Your task to perform on an android device: Search for pizza restaurants on Maps Image 0: 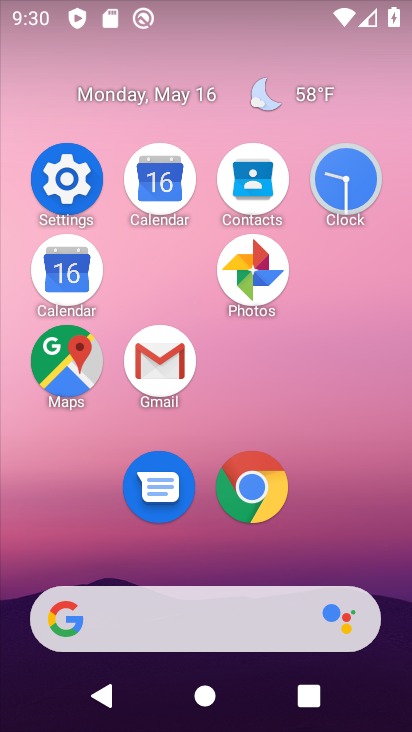
Step 0: click (84, 380)
Your task to perform on an android device: Search for pizza restaurants on Maps Image 1: 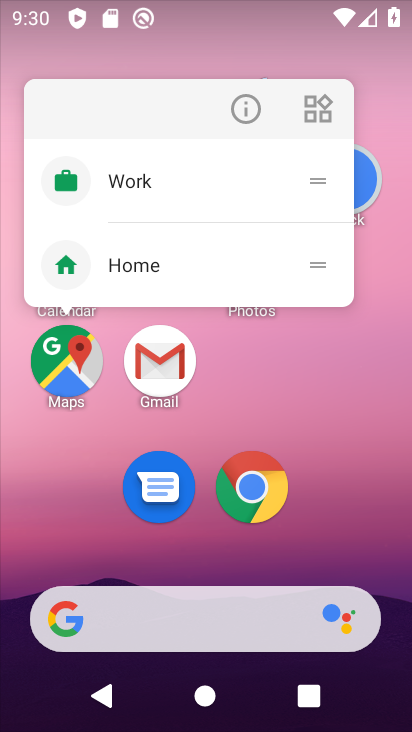
Step 1: click (41, 408)
Your task to perform on an android device: Search for pizza restaurants on Maps Image 2: 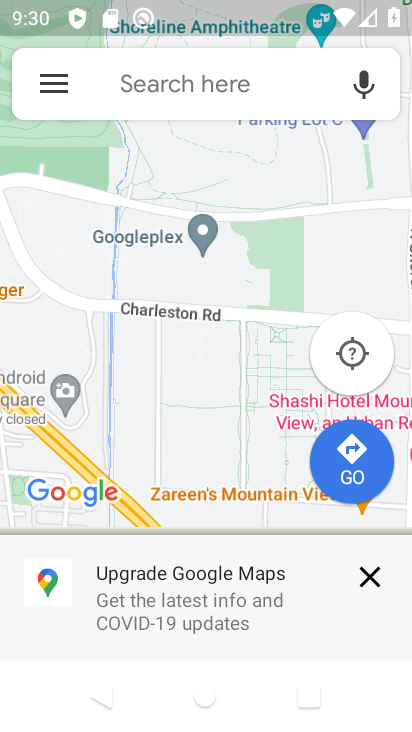
Step 2: click (257, 75)
Your task to perform on an android device: Search for pizza restaurants on Maps Image 3: 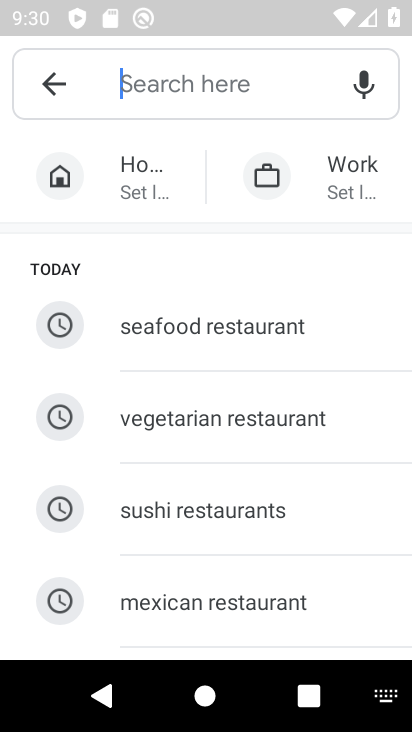
Step 3: drag from (233, 544) to (271, 216)
Your task to perform on an android device: Search for pizza restaurants on Maps Image 4: 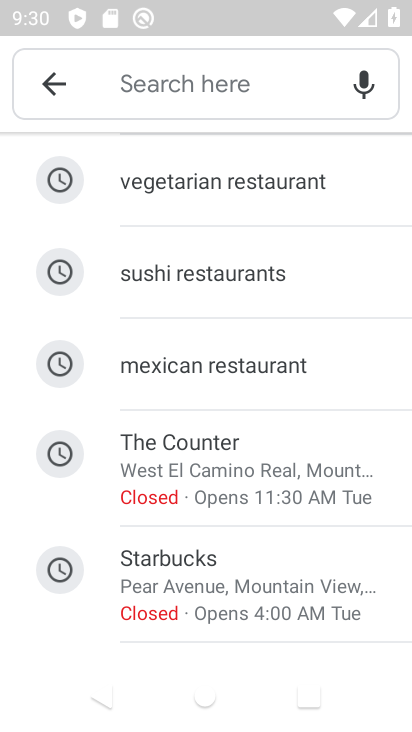
Step 4: click (202, 97)
Your task to perform on an android device: Search for pizza restaurants on Maps Image 5: 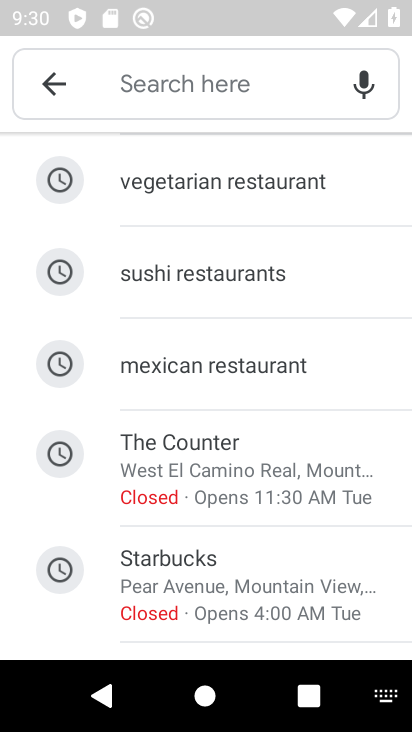
Step 5: type "pizza restaurants"
Your task to perform on an android device: Search for pizza restaurants on Maps Image 6: 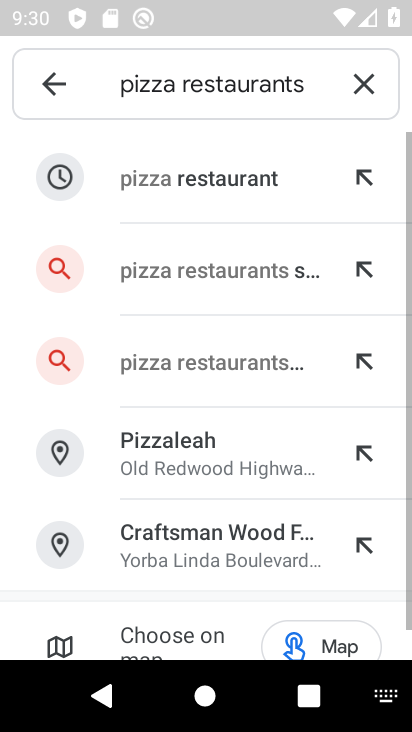
Step 6: click (160, 159)
Your task to perform on an android device: Search for pizza restaurants on Maps Image 7: 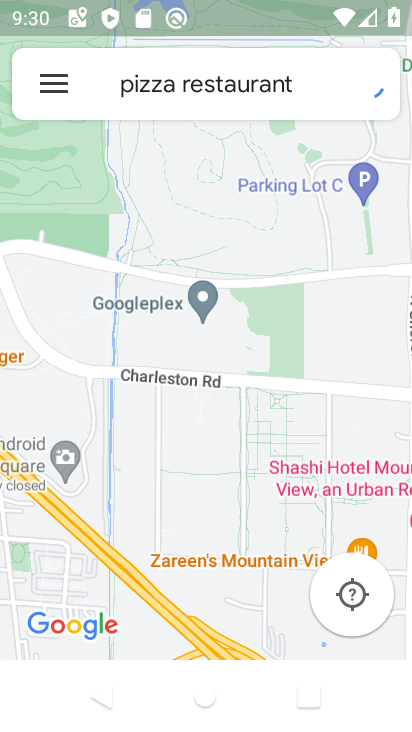
Step 7: task complete